Your task to perform on an android device: toggle pop-ups in chrome Image 0: 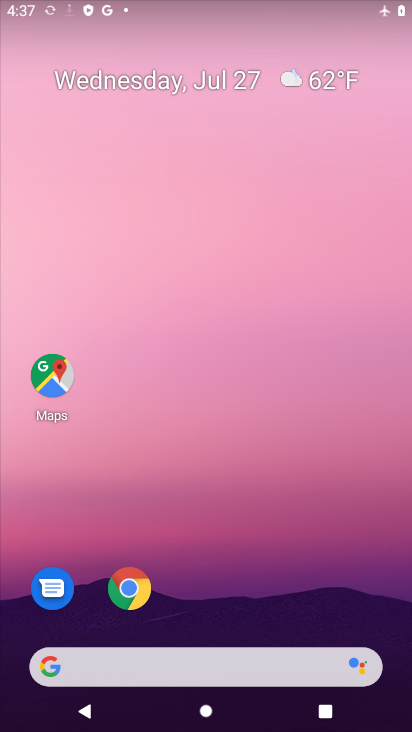
Step 0: click (131, 588)
Your task to perform on an android device: toggle pop-ups in chrome Image 1: 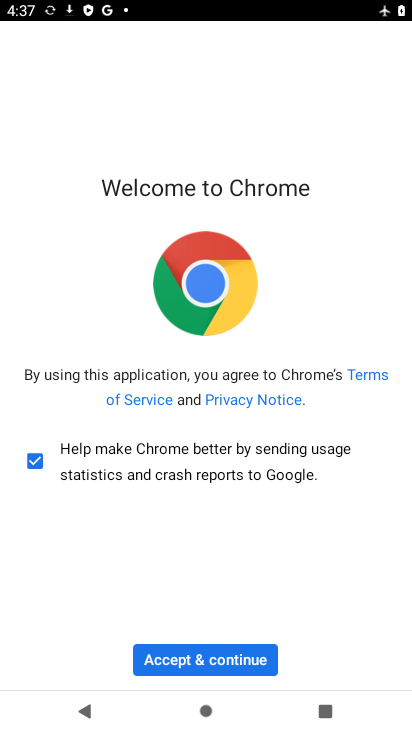
Step 1: click (207, 659)
Your task to perform on an android device: toggle pop-ups in chrome Image 2: 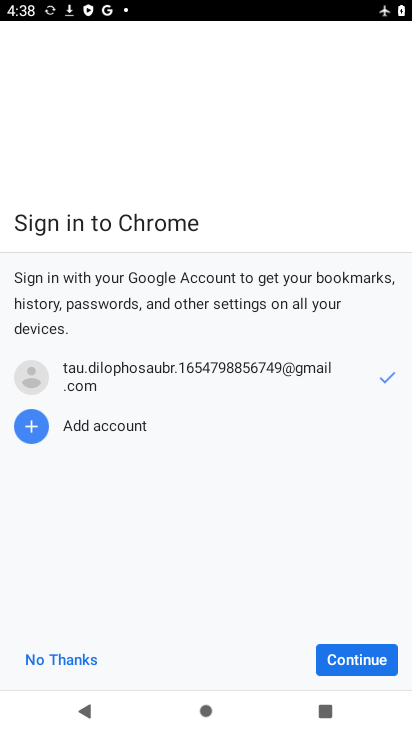
Step 2: click (337, 662)
Your task to perform on an android device: toggle pop-ups in chrome Image 3: 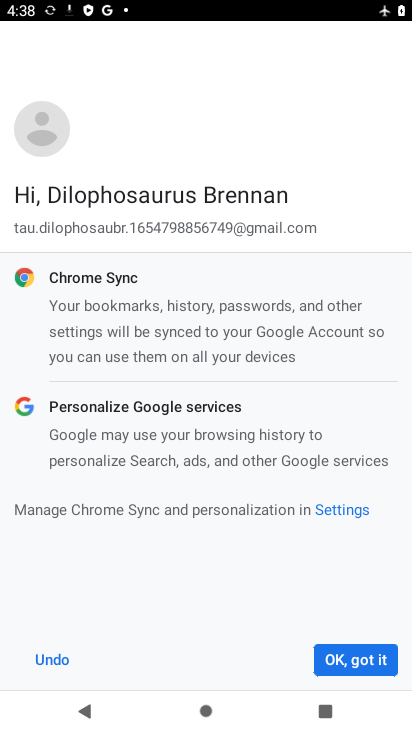
Step 3: click (337, 662)
Your task to perform on an android device: toggle pop-ups in chrome Image 4: 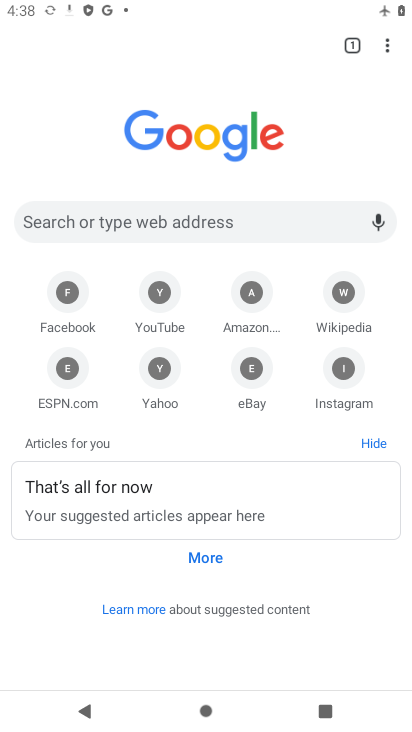
Step 4: click (391, 45)
Your task to perform on an android device: toggle pop-ups in chrome Image 5: 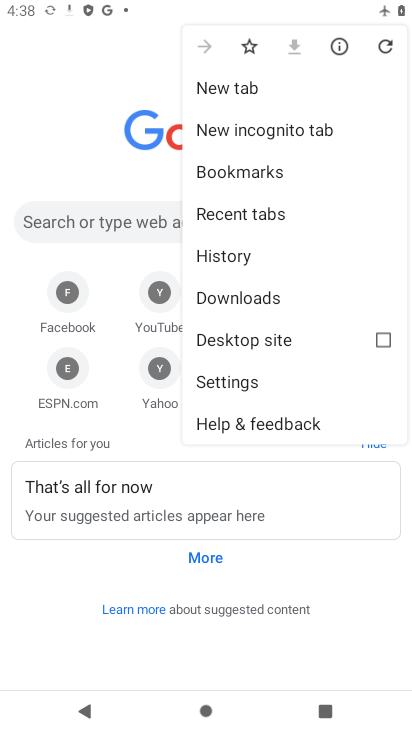
Step 5: click (242, 378)
Your task to perform on an android device: toggle pop-ups in chrome Image 6: 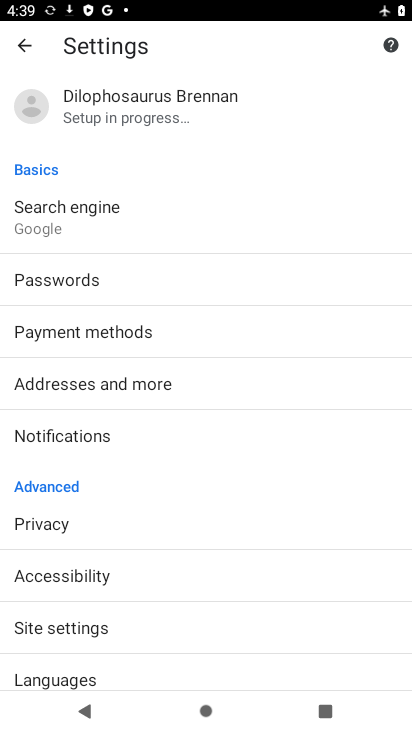
Step 6: click (83, 635)
Your task to perform on an android device: toggle pop-ups in chrome Image 7: 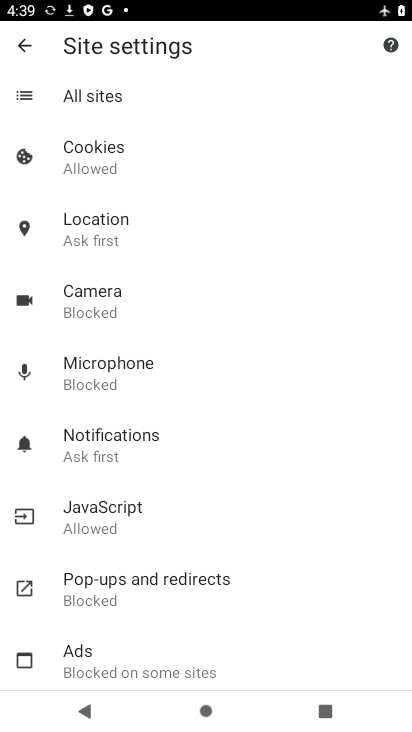
Step 7: click (92, 594)
Your task to perform on an android device: toggle pop-ups in chrome Image 8: 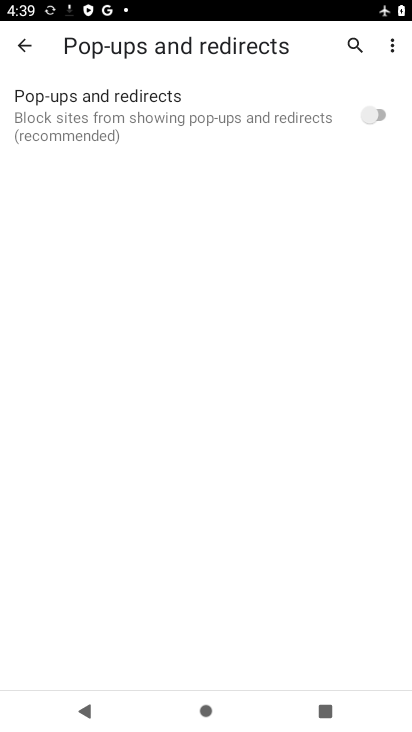
Step 8: click (383, 115)
Your task to perform on an android device: toggle pop-ups in chrome Image 9: 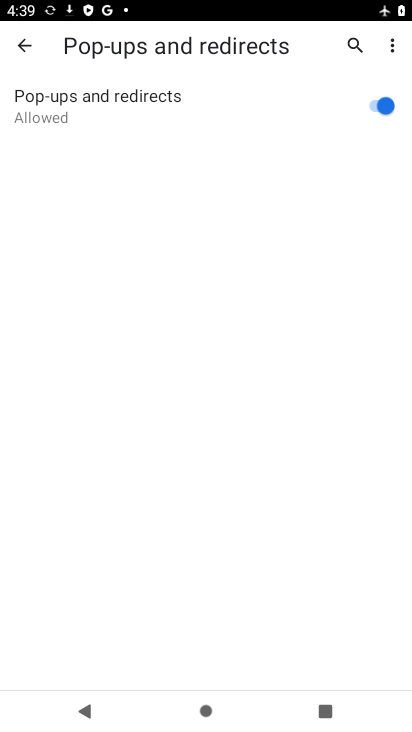
Step 9: task complete